Your task to perform on an android device: find which apps use the phone's location Image 0: 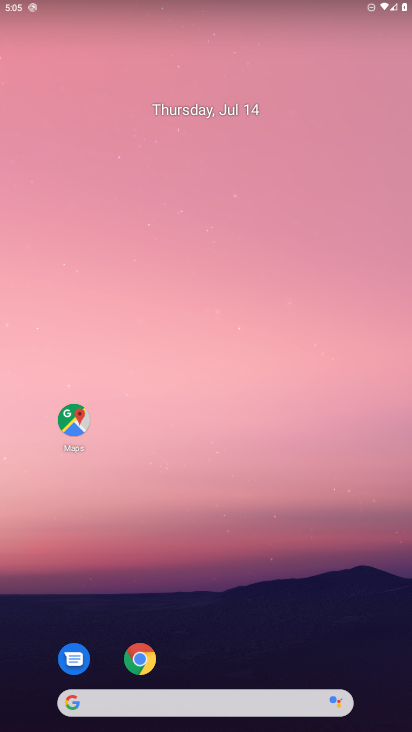
Step 0: drag from (248, 112) to (248, 76)
Your task to perform on an android device: find which apps use the phone's location Image 1: 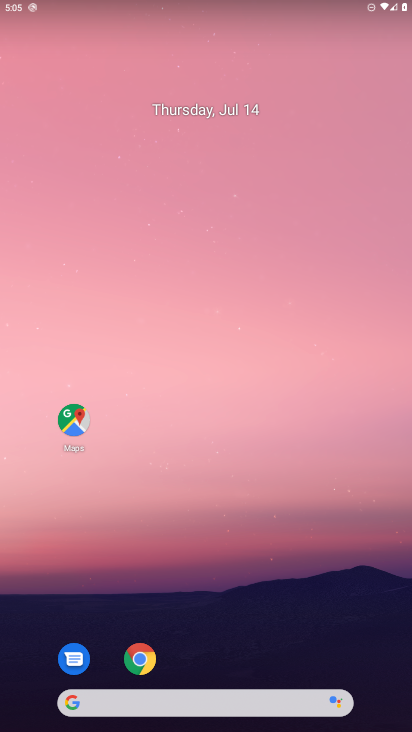
Step 1: drag from (202, 663) to (244, 178)
Your task to perform on an android device: find which apps use the phone's location Image 2: 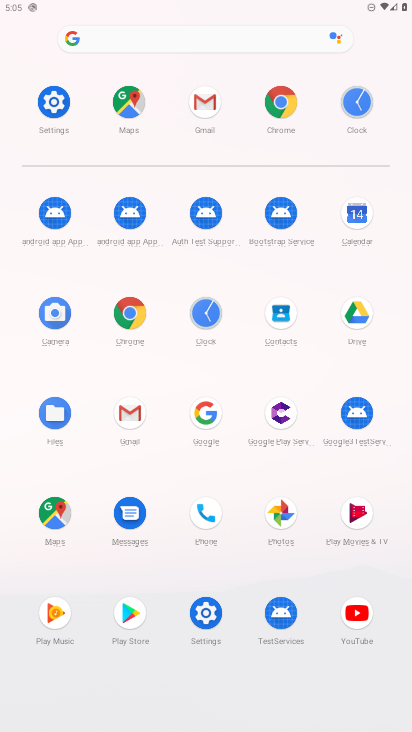
Step 2: click (48, 99)
Your task to perform on an android device: find which apps use the phone's location Image 3: 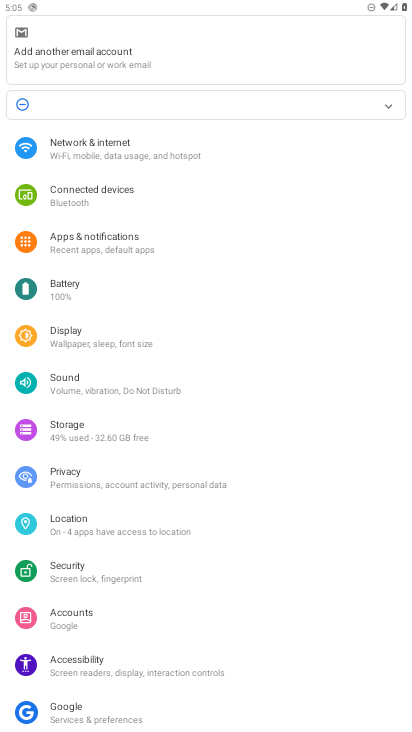
Step 3: click (93, 518)
Your task to perform on an android device: find which apps use the phone's location Image 4: 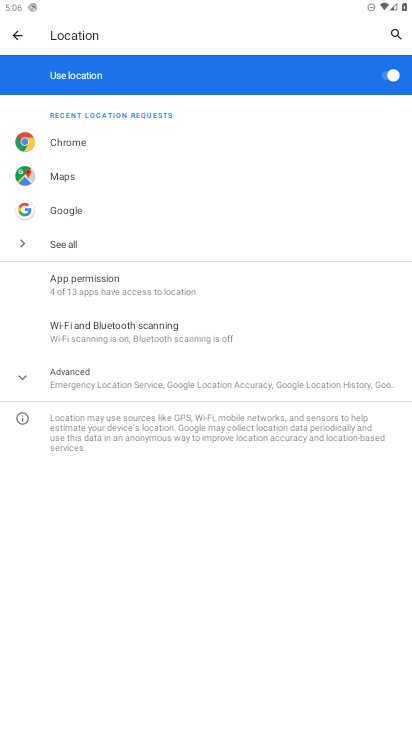
Step 4: click (40, 372)
Your task to perform on an android device: find which apps use the phone's location Image 5: 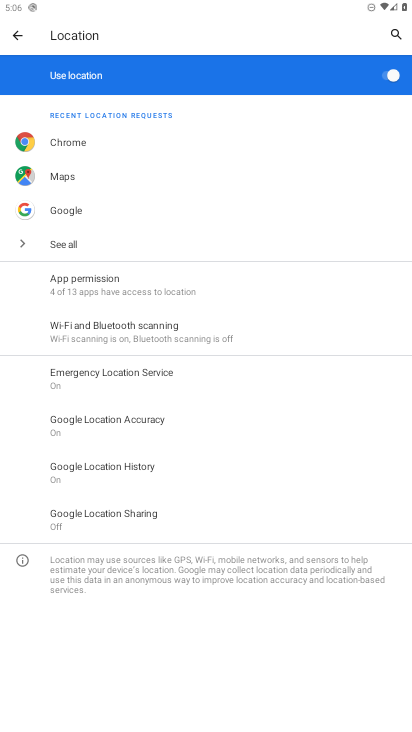
Step 5: click (91, 276)
Your task to perform on an android device: find which apps use the phone's location Image 6: 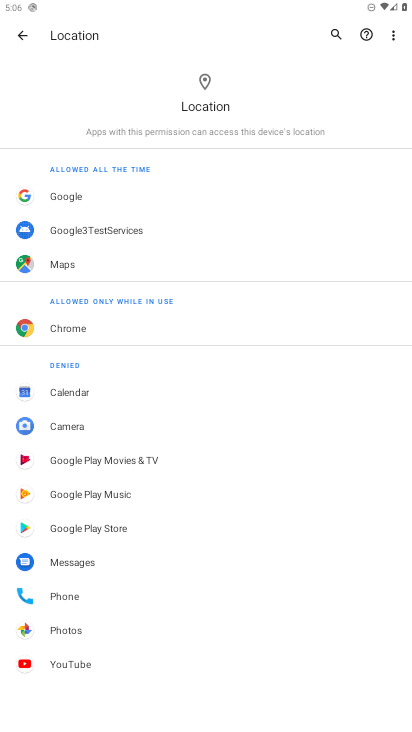
Step 6: task complete